Your task to perform on an android device: Check the settings for the Netflix app Image 0: 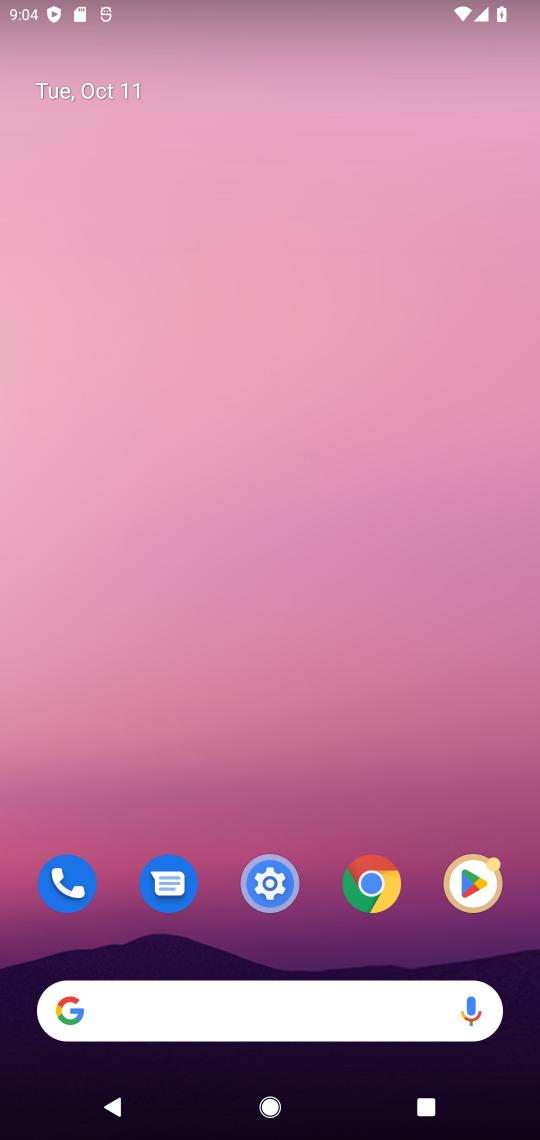
Step 0: task impossible